Your task to perform on an android device: turn on sleep mode Image 0: 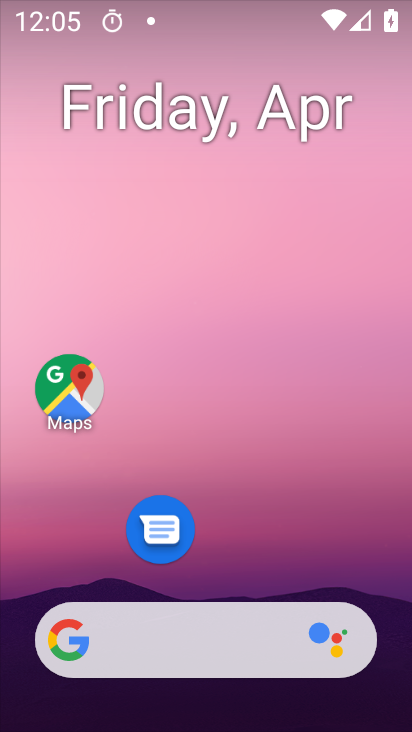
Step 0: drag from (234, 559) to (272, 70)
Your task to perform on an android device: turn on sleep mode Image 1: 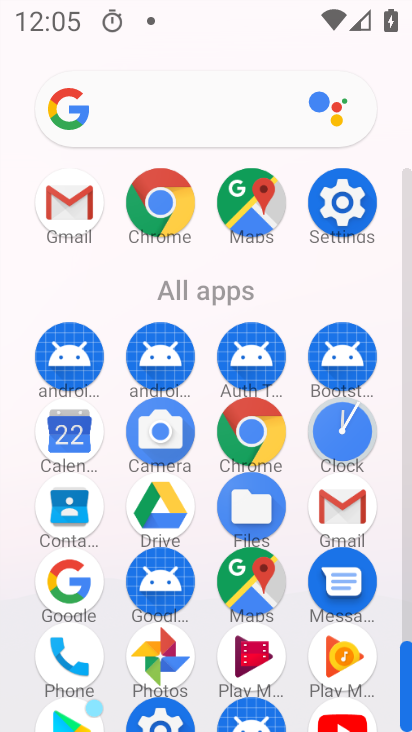
Step 1: click (362, 230)
Your task to perform on an android device: turn on sleep mode Image 2: 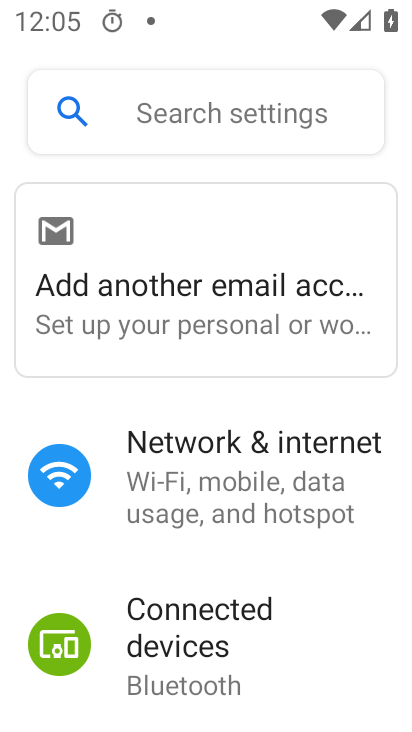
Step 2: click (234, 113)
Your task to perform on an android device: turn on sleep mode Image 3: 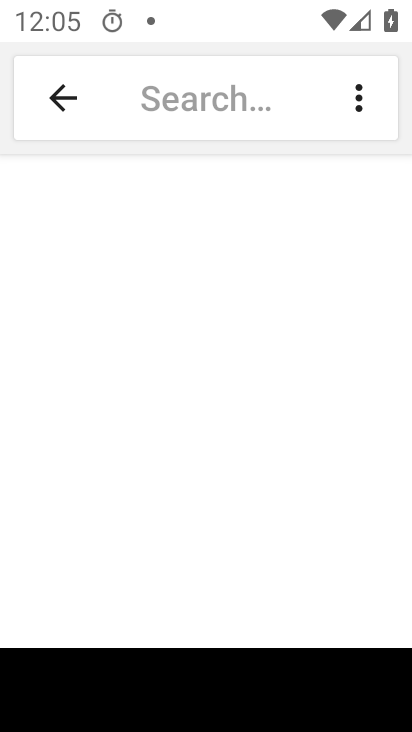
Step 3: type "sleep mode"
Your task to perform on an android device: turn on sleep mode Image 4: 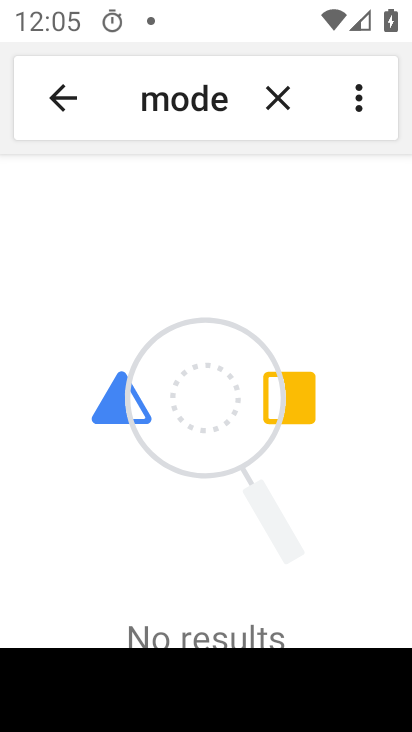
Step 4: task complete